Your task to perform on an android device: Open privacy settings Image 0: 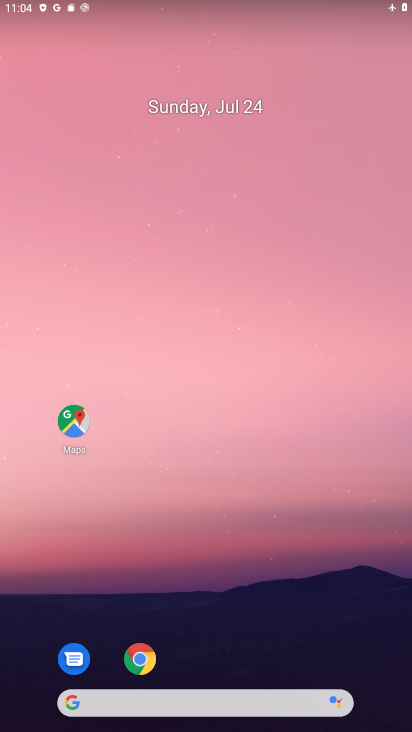
Step 0: drag from (240, 646) to (214, 179)
Your task to perform on an android device: Open privacy settings Image 1: 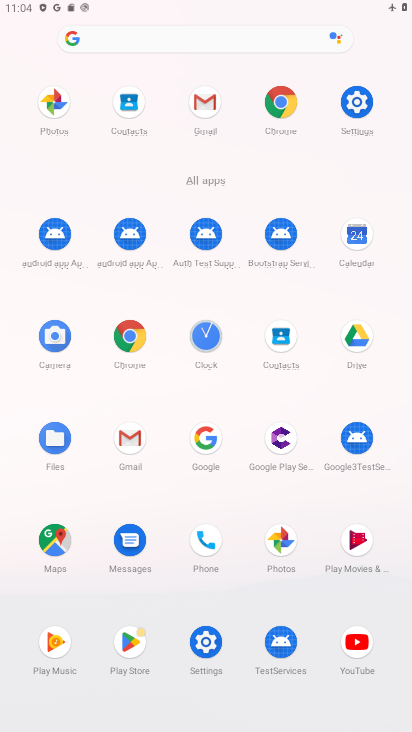
Step 1: click (357, 100)
Your task to perform on an android device: Open privacy settings Image 2: 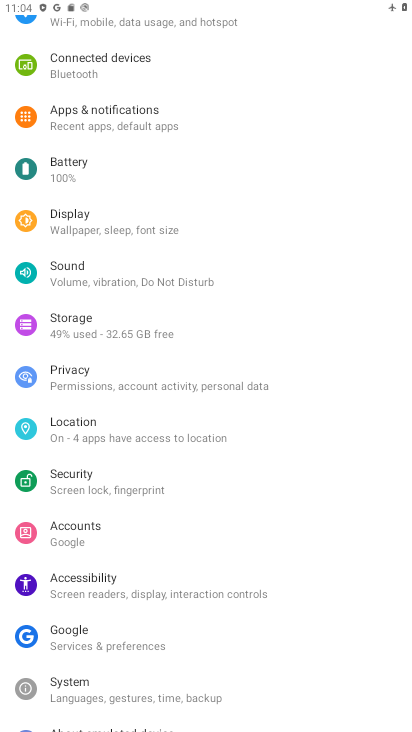
Step 2: click (148, 393)
Your task to perform on an android device: Open privacy settings Image 3: 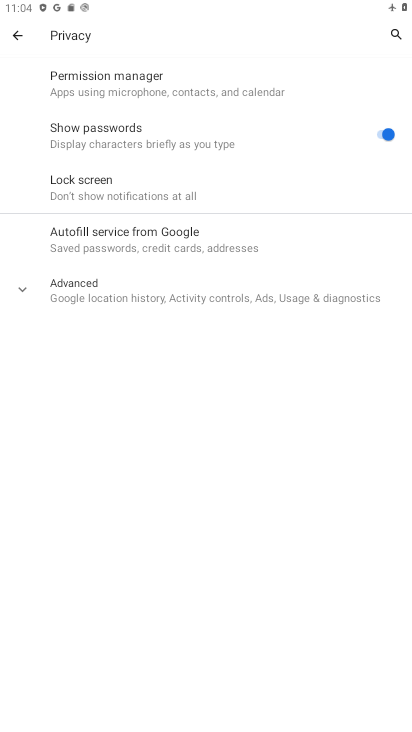
Step 3: task complete